Your task to perform on an android device: set default search engine in the chrome app Image 0: 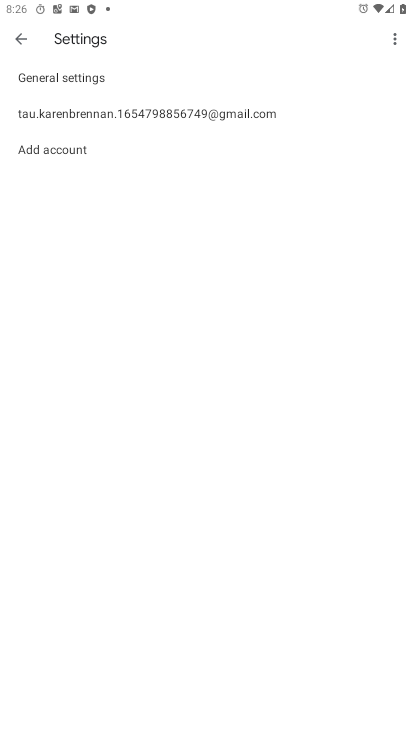
Step 0: press home button
Your task to perform on an android device: set default search engine in the chrome app Image 1: 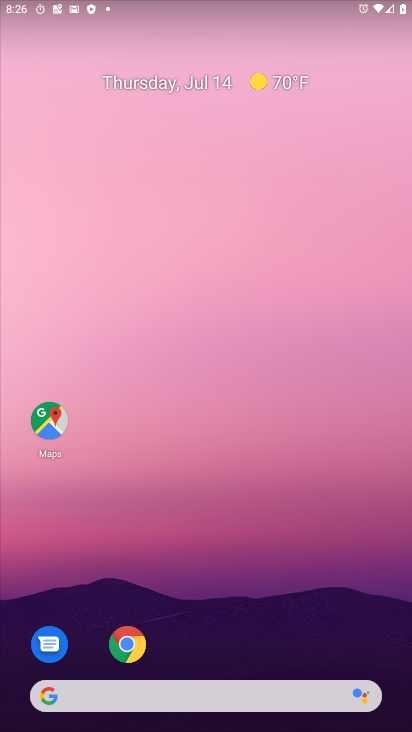
Step 1: click (137, 640)
Your task to perform on an android device: set default search engine in the chrome app Image 2: 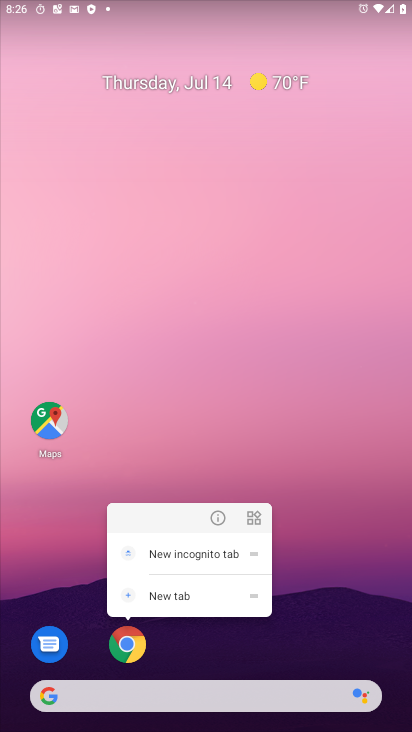
Step 2: click (122, 642)
Your task to perform on an android device: set default search engine in the chrome app Image 3: 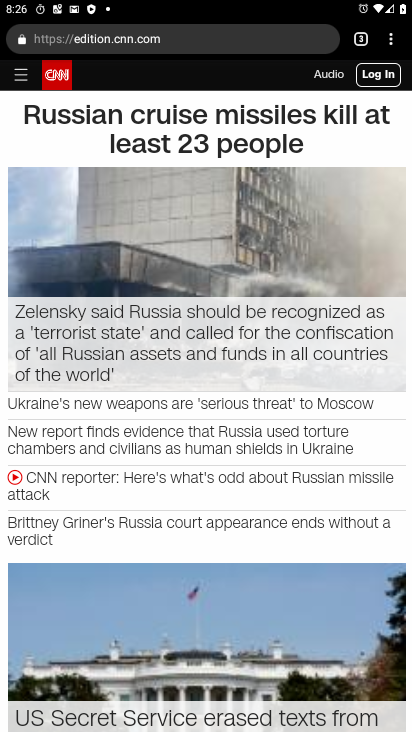
Step 3: drag from (396, 36) to (252, 484)
Your task to perform on an android device: set default search engine in the chrome app Image 4: 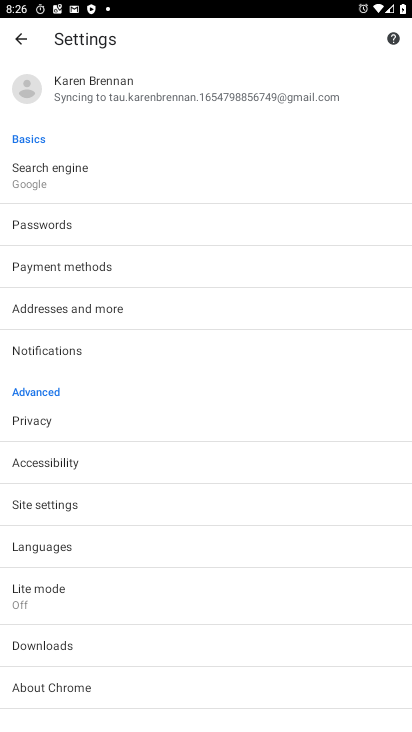
Step 4: click (51, 171)
Your task to perform on an android device: set default search engine in the chrome app Image 5: 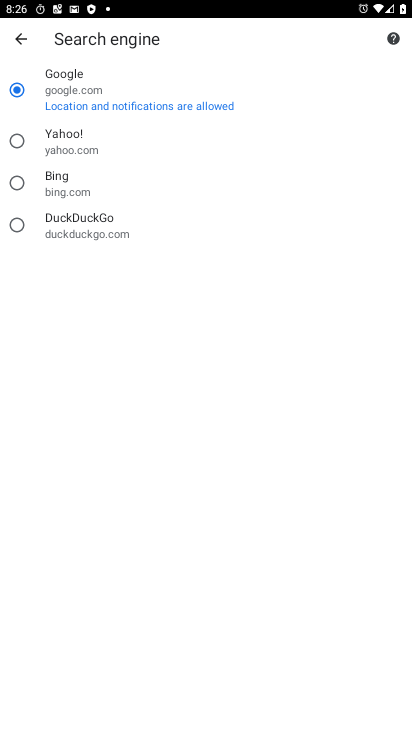
Step 5: click (19, 144)
Your task to perform on an android device: set default search engine in the chrome app Image 6: 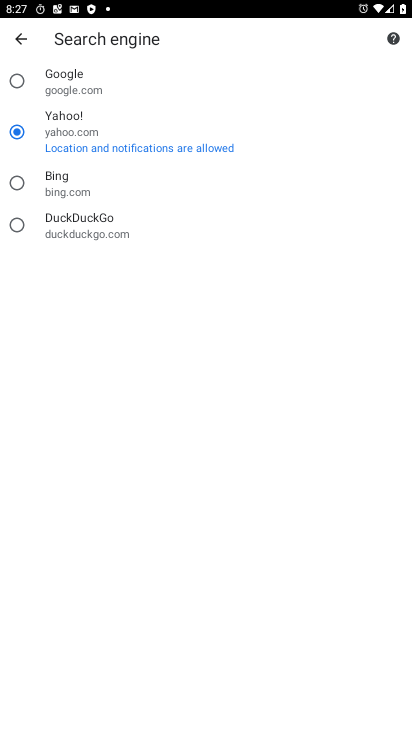
Step 6: task complete